Your task to perform on an android device: Do I have any events today? Image 0: 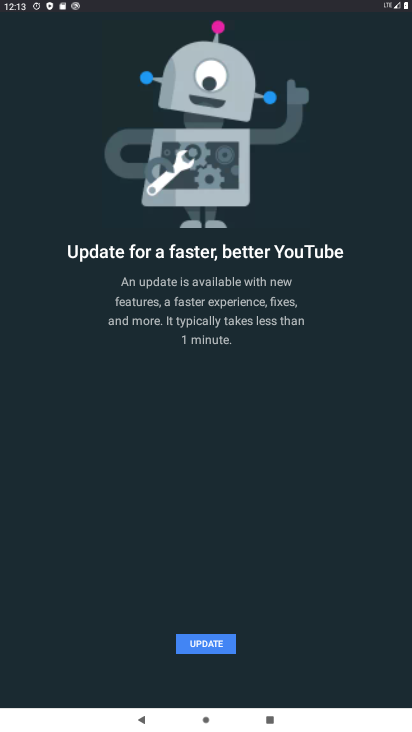
Step 0: press back button
Your task to perform on an android device: Do I have any events today? Image 1: 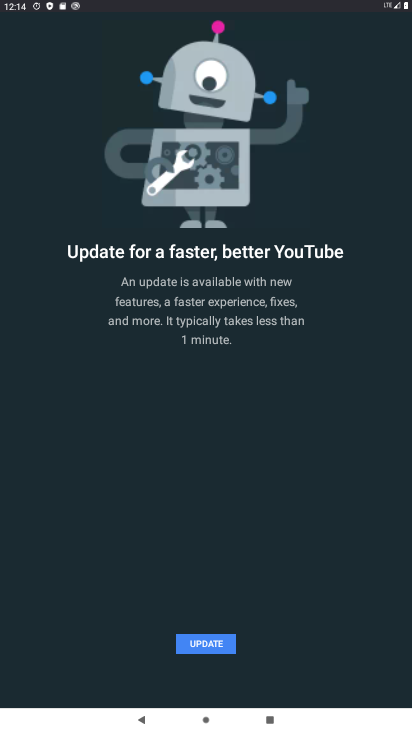
Step 1: press back button
Your task to perform on an android device: Do I have any events today? Image 2: 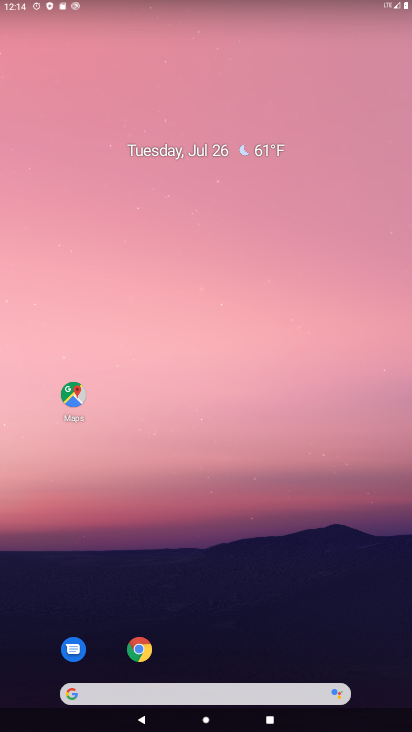
Step 2: drag from (158, 117) to (158, 72)
Your task to perform on an android device: Do I have any events today? Image 3: 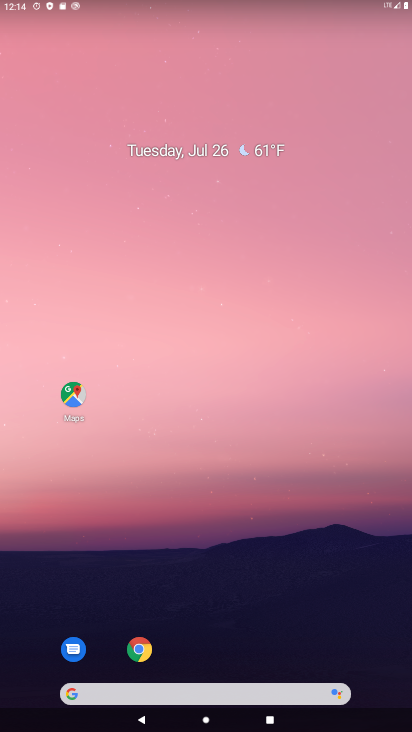
Step 3: drag from (218, 670) to (322, 702)
Your task to perform on an android device: Do I have any events today? Image 4: 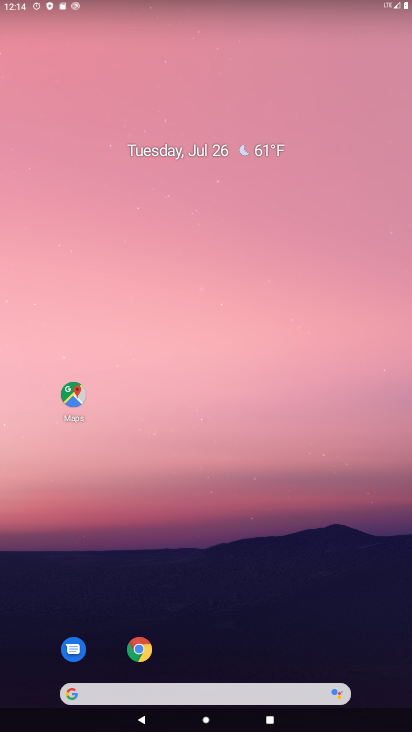
Step 4: click (222, 695)
Your task to perform on an android device: Do I have any events today? Image 5: 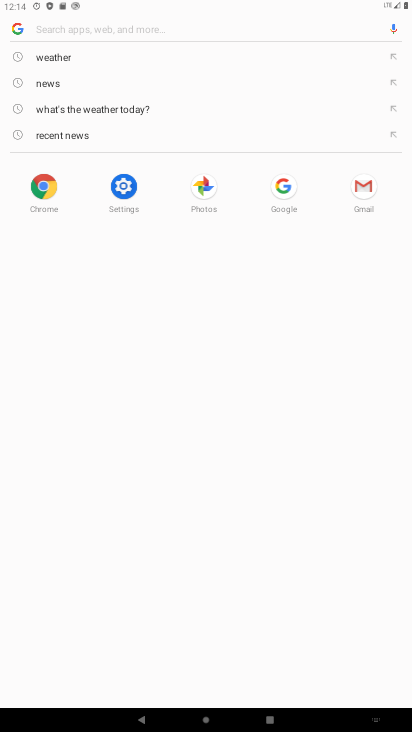
Step 5: press home button
Your task to perform on an android device: Do I have any events today? Image 6: 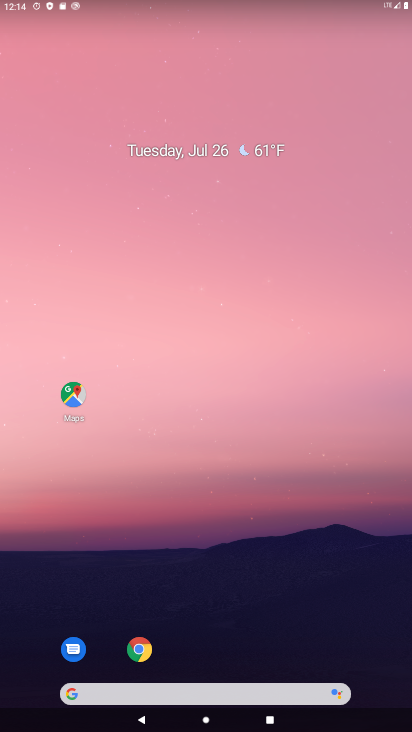
Step 6: drag from (233, 669) to (409, 546)
Your task to perform on an android device: Do I have any events today? Image 7: 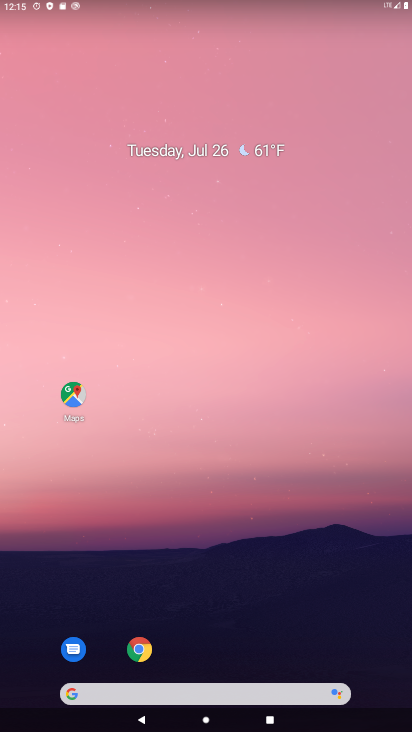
Step 7: drag from (203, 663) to (355, 51)
Your task to perform on an android device: Do I have any events today? Image 8: 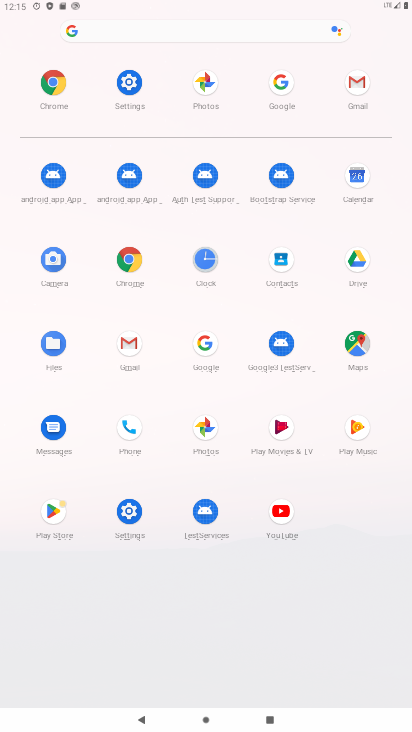
Step 8: click (356, 189)
Your task to perform on an android device: Do I have any events today? Image 9: 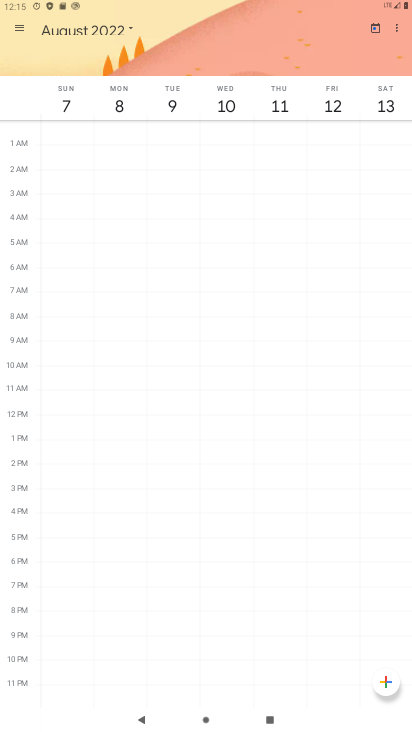
Step 9: click (373, 22)
Your task to perform on an android device: Do I have any events today? Image 10: 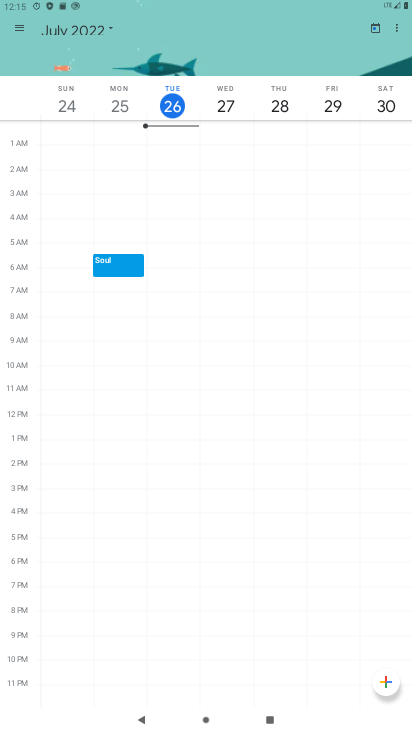
Step 10: click (166, 96)
Your task to perform on an android device: Do I have any events today? Image 11: 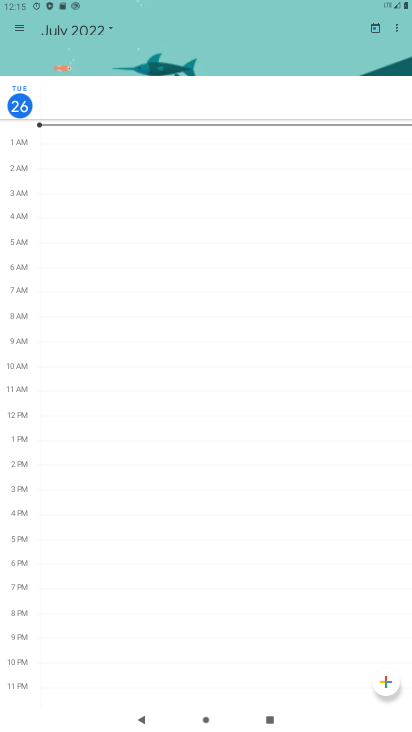
Step 11: task complete